Your task to perform on an android device: View the shopping cart on newegg.com. Add "apple airpods" to the cart on newegg.com Image 0: 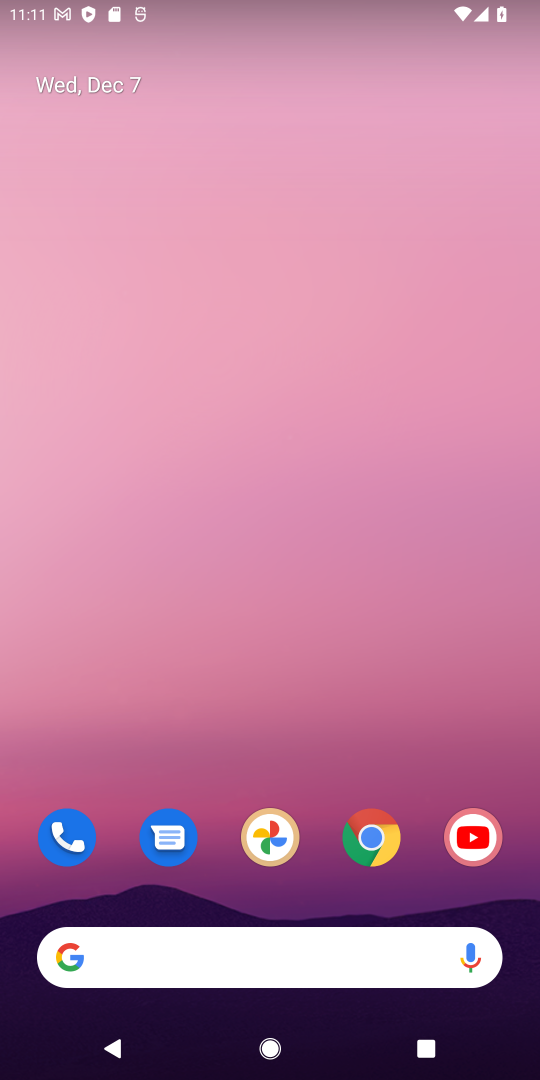
Step 0: click (370, 838)
Your task to perform on an android device: View the shopping cart on newegg.com. Add "apple airpods" to the cart on newegg.com Image 1: 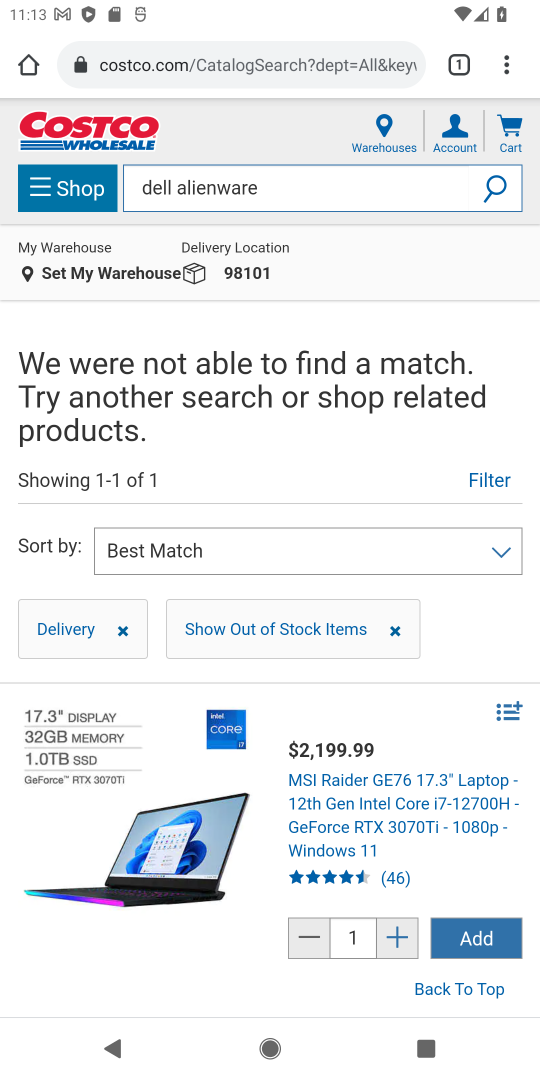
Step 1: click (265, 56)
Your task to perform on an android device: View the shopping cart on newegg.com. Add "apple airpods" to the cart on newegg.com Image 2: 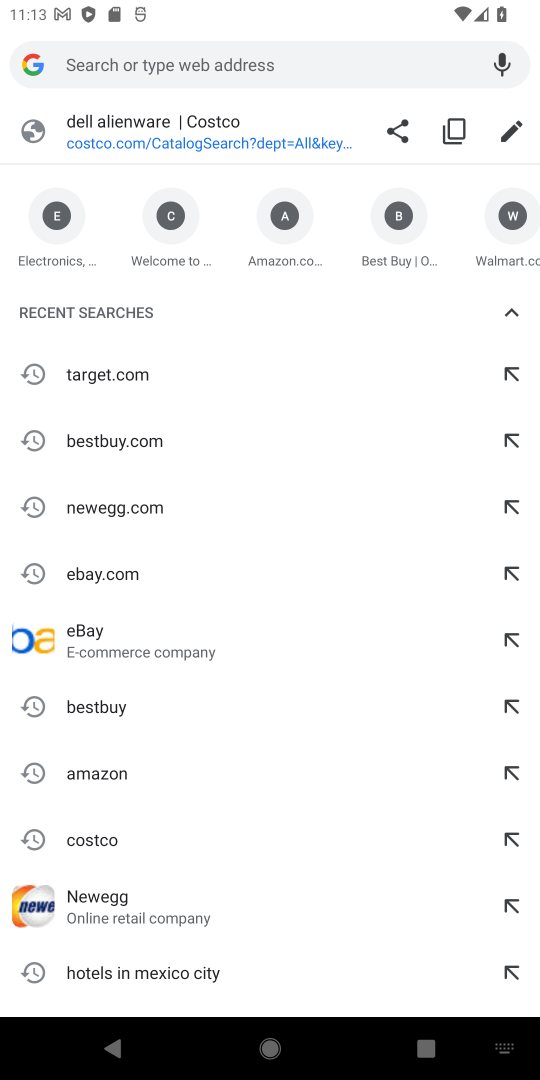
Step 2: click (123, 506)
Your task to perform on an android device: View the shopping cart on newegg.com. Add "apple airpods" to the cart on newegg.com Image 3: 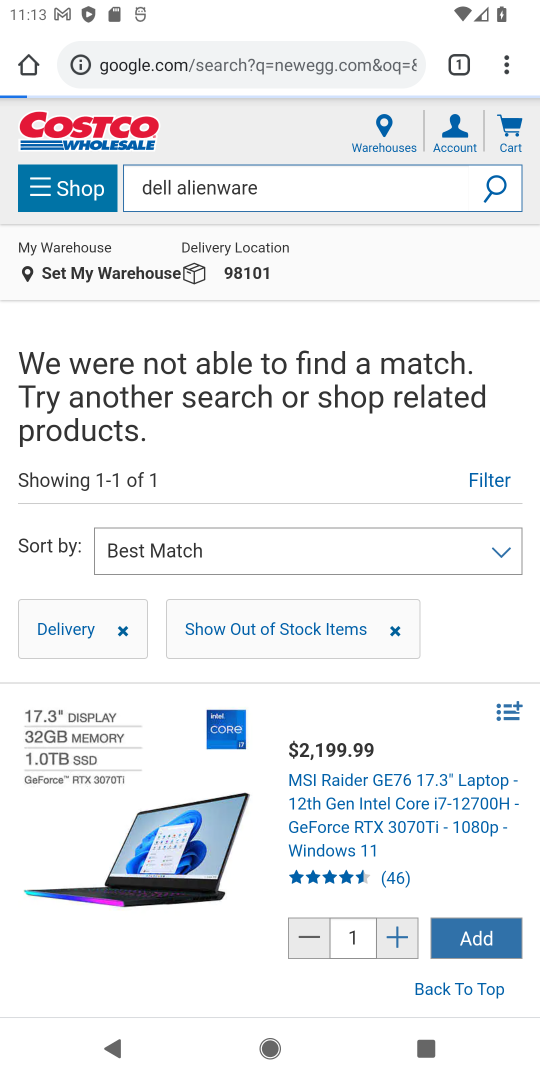
Step 3: click (258, 66)
Your task to perform on an android device: View the shopping cart on newegg.com. Add "apple airpods" to the cart on newegg.com Image 4: 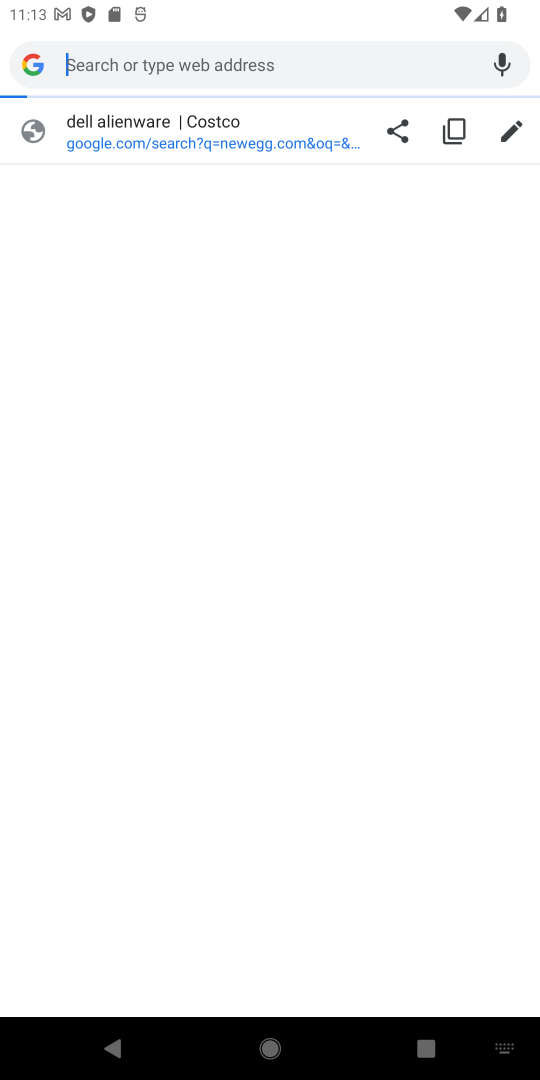
Step 4: type "newegg.com"
Your task to perform on an android device: View the shopping cart on newegg.com. Add "apple airpods" to the cart on newegg.com Image 5: 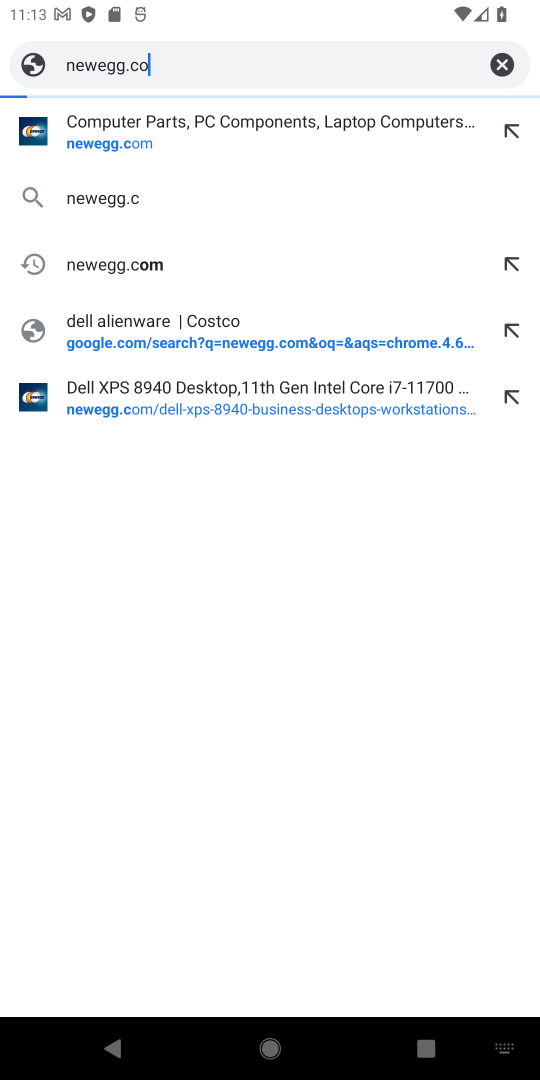
Step 5: press enter
Your task to perform on an android device: View the shopping cart on newegg.com. Add "apple airpods" to the cart on newegg.com Image 6: 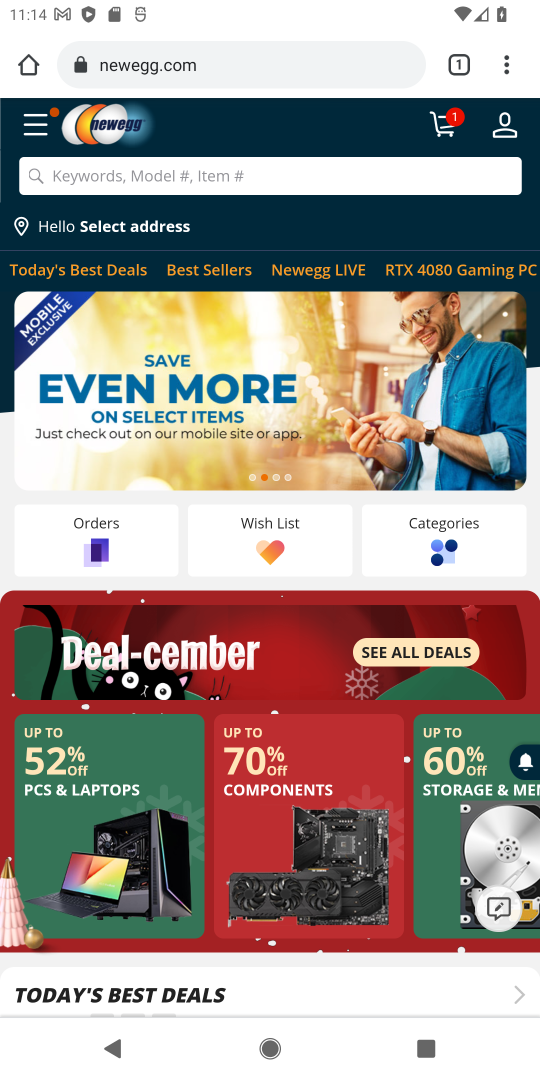
Step 6: click (444, 126)
Your task to perform on an android device: View the shopping cart on newegg.com. Add "apple airpods" to the cart on newegg.com Image 7: 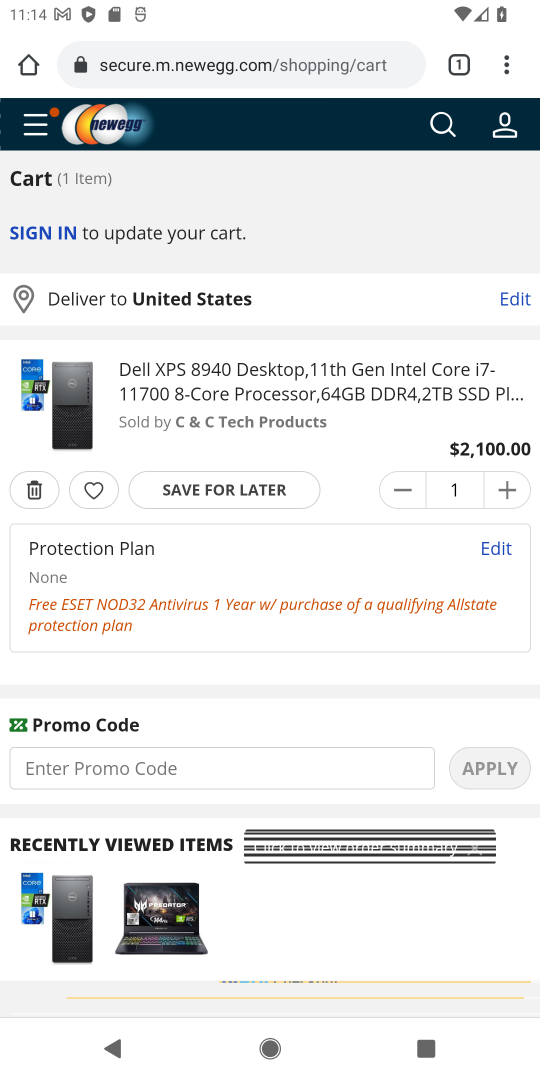
Step 7: click (446, 127)
Your task to perform on an android device: View the shopping cart on newegg.com. Add "apple airpods" to the cart on newegg.com Image 8: 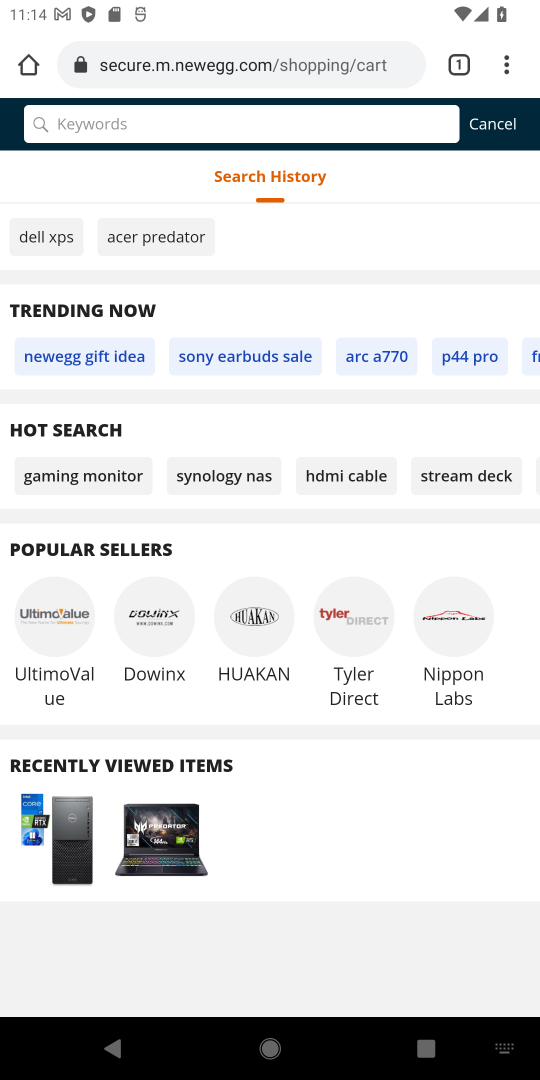
Step 8: type "apple airpods"
Your task to perform on an android device: View the shopping cart on newegg.com. Add "apple airpods" to the cart on newegg.com Image 9: 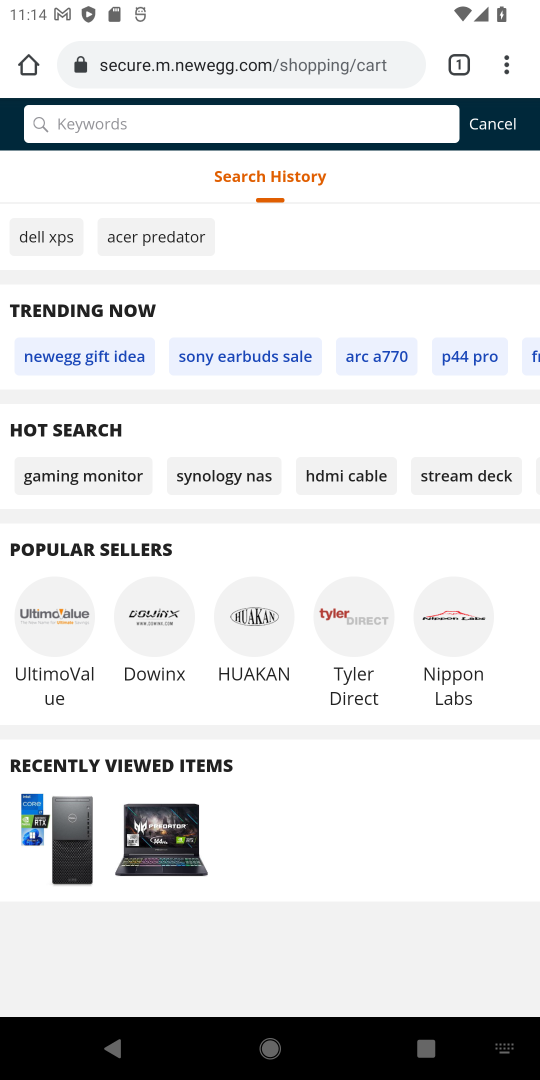
Step 9: press enter
Your task to perform on an android device: View the shopping cart on newegg.com. Add "apple airpods" to the cart on newegg.com Image 10: 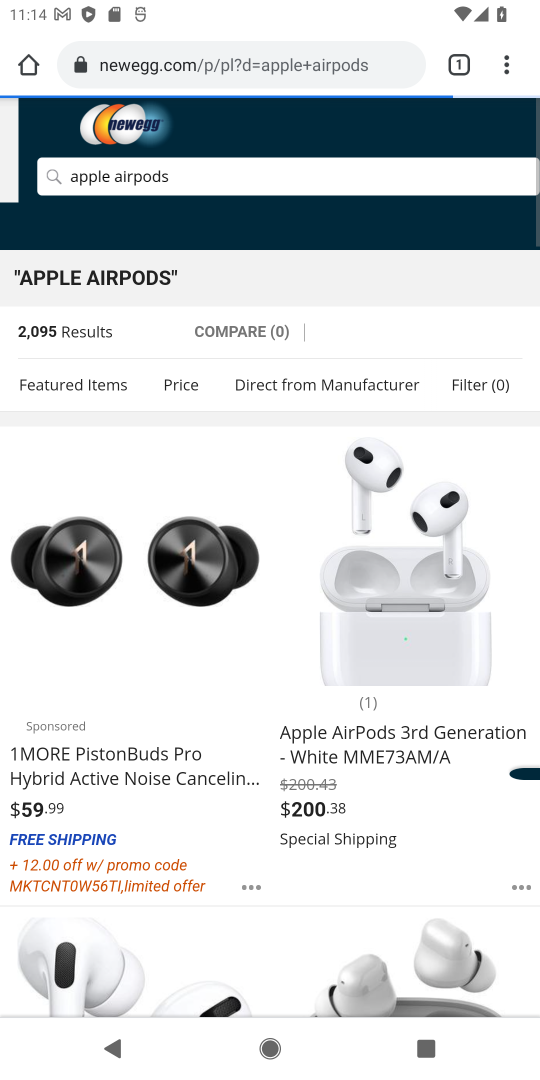
Step 10: click (103, 506)
Your task to perform on an android device: View the shopping cart on newegg.com. Add "apple airpods" to the cart on newegg.com Image 11: 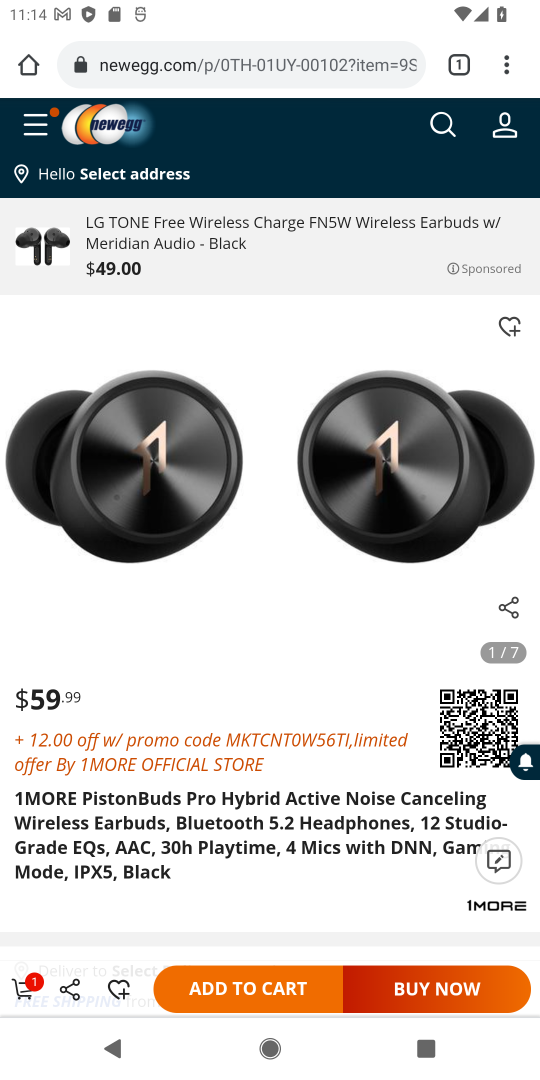
Step 11: press back button
Your task to perform on an android device: View the shopping cart on newegg.com. Add "apple airpods" to the cart on newegg.com Image 12: 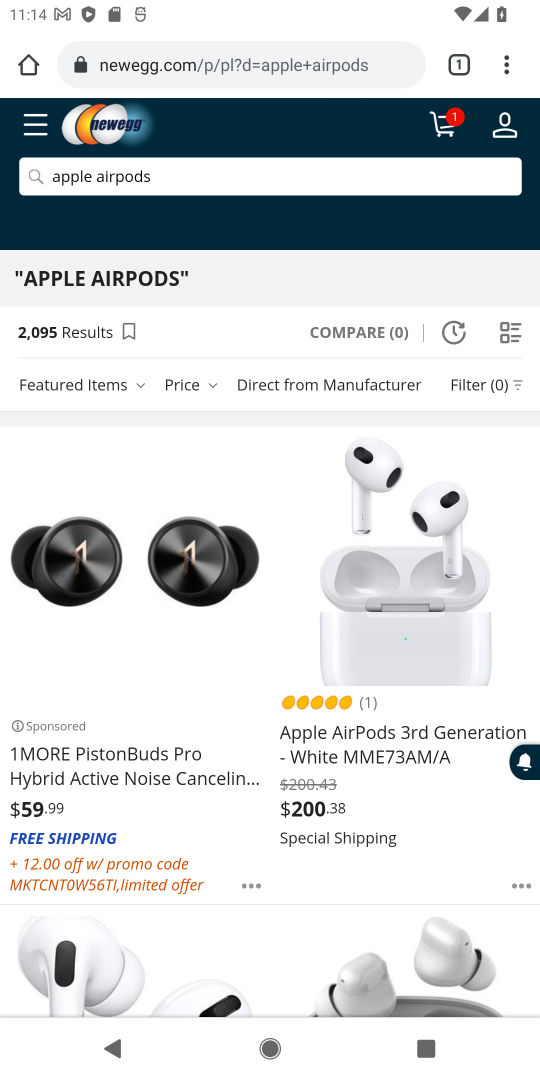
Step 12: click (360, 504)
Your task to perform on an android device: View the shopping cart on newegg.com. Add "apple airpods" to the cart on newegg.com Image 13: 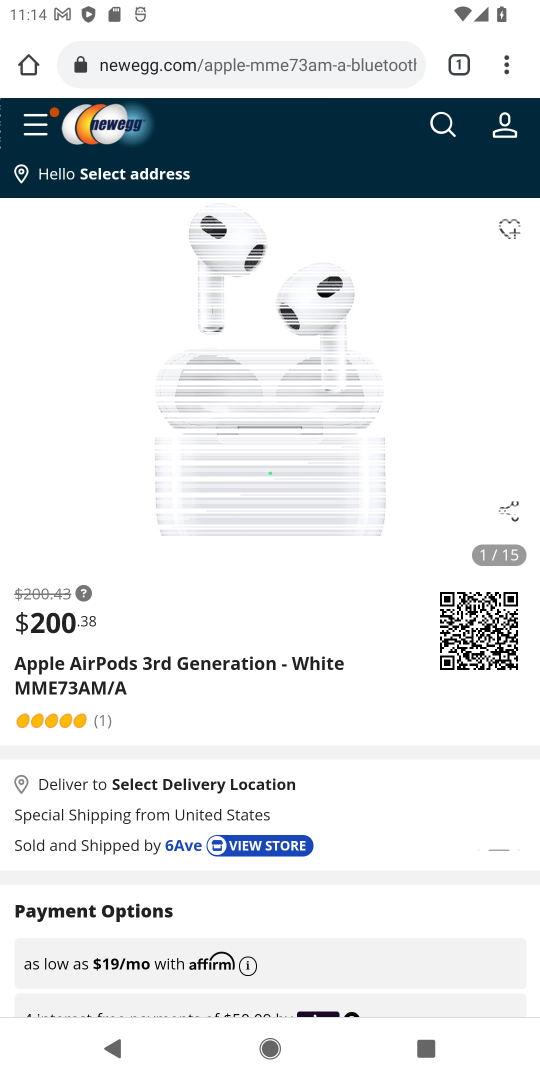
Step 13: click (246, 986)
Your task to perform on an android device: View the shopping cart on newegg.com. Add "apple airpods" to the cart on newegg.com Image 14: 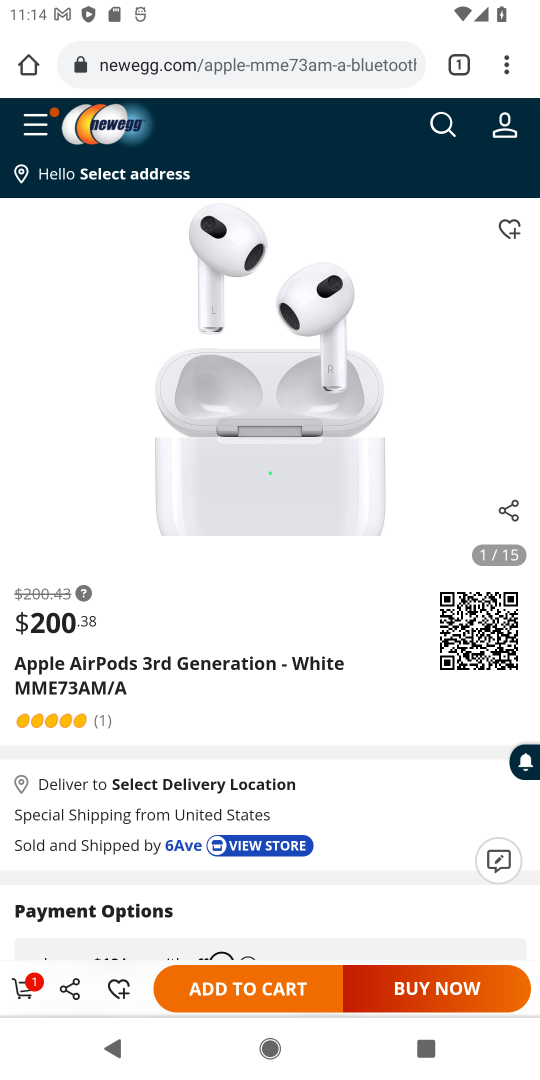
Step 14: click (248, 985)
Your task to perform on an android device: View the shopping cart on newegg.com. Add "apple airpods" to the cart on newegg.com Image 15: 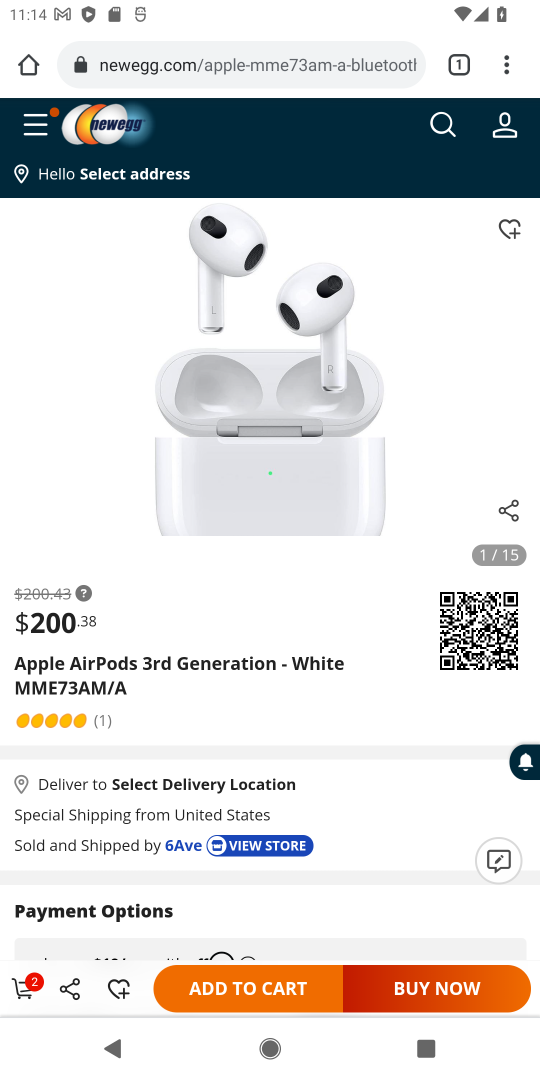
Step 15: click (28, 994)
Your task to perform on an android device: View the shopping cart on newegg.com. Add "apple airpods" to the cart on newegg.com Image 16: 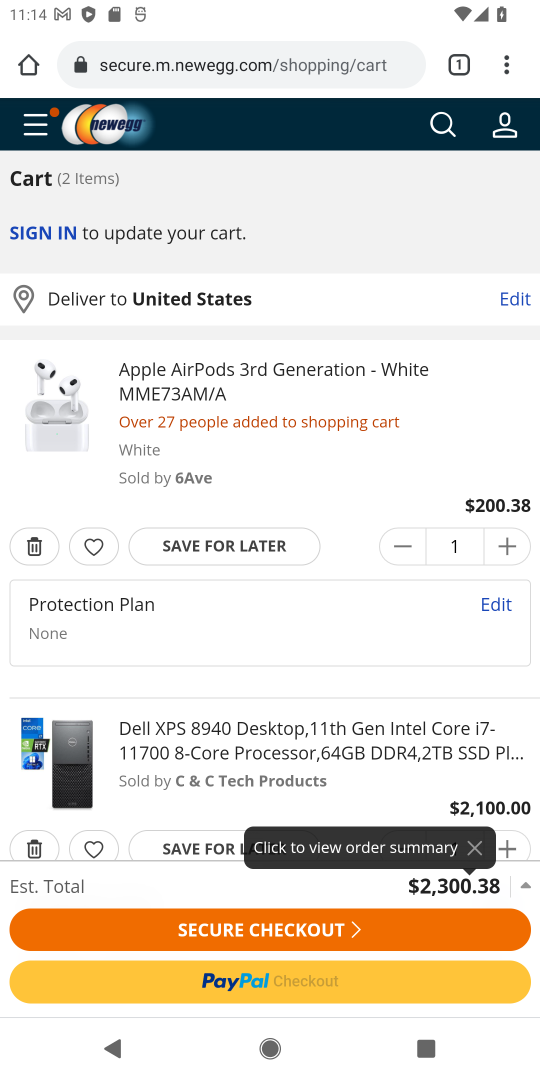
Step 16: task complete